Your task to perform on an android device: install app "Google Find My Device" Image 0: 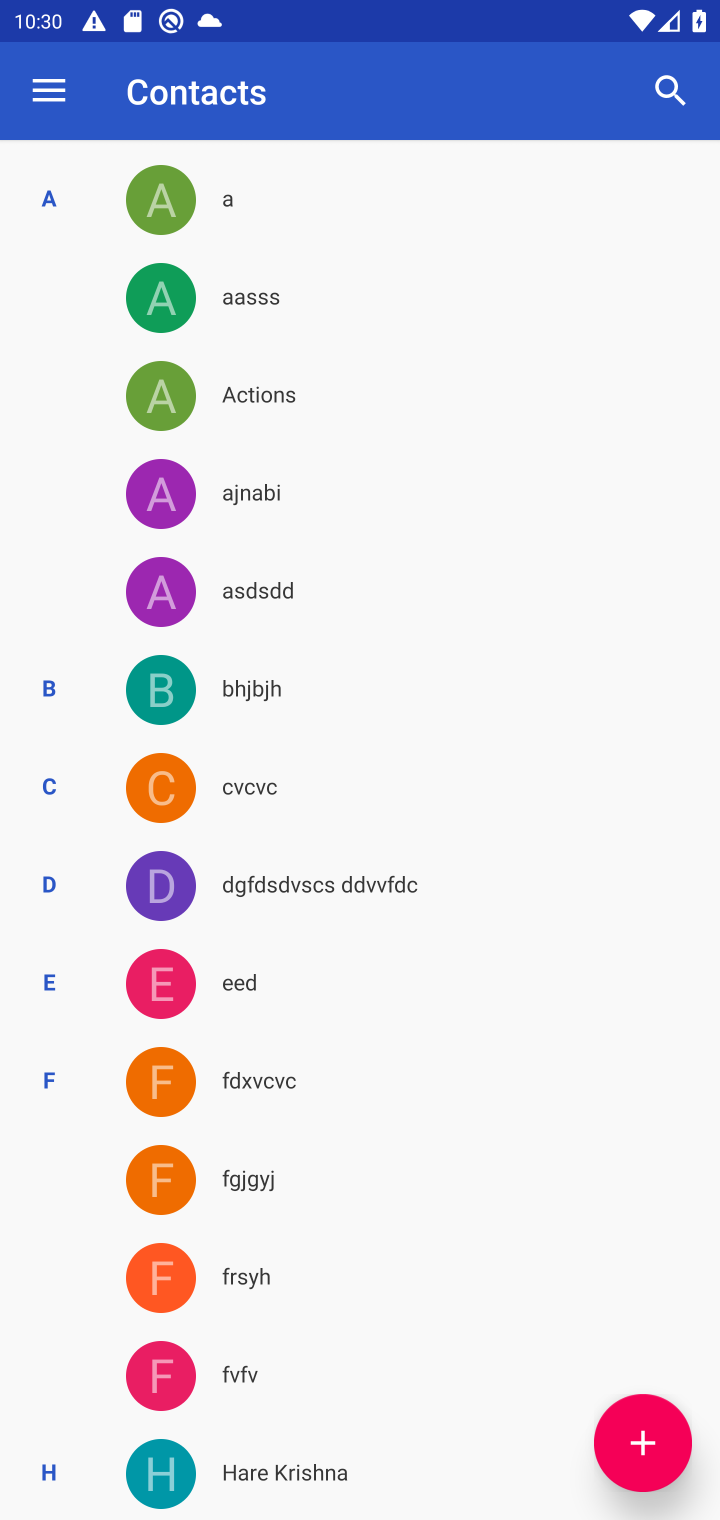
Step 0: press home button
Your task to perform on an android device: install app "Google Find My Device" Image 1: 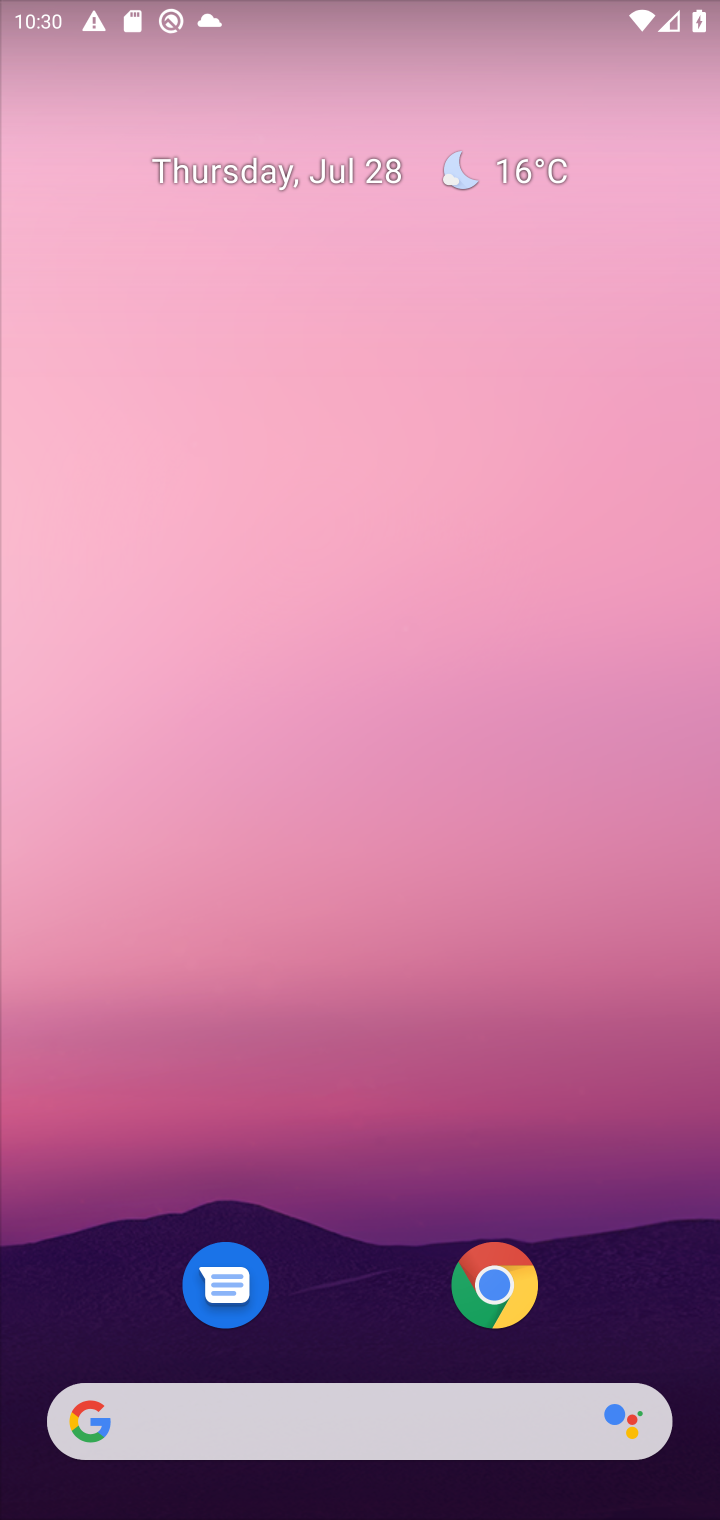
Step 1: drag from (580, 1151) to (428, 130)
Your task to perform on an android device: install app "Google Find My Device" Image 2: 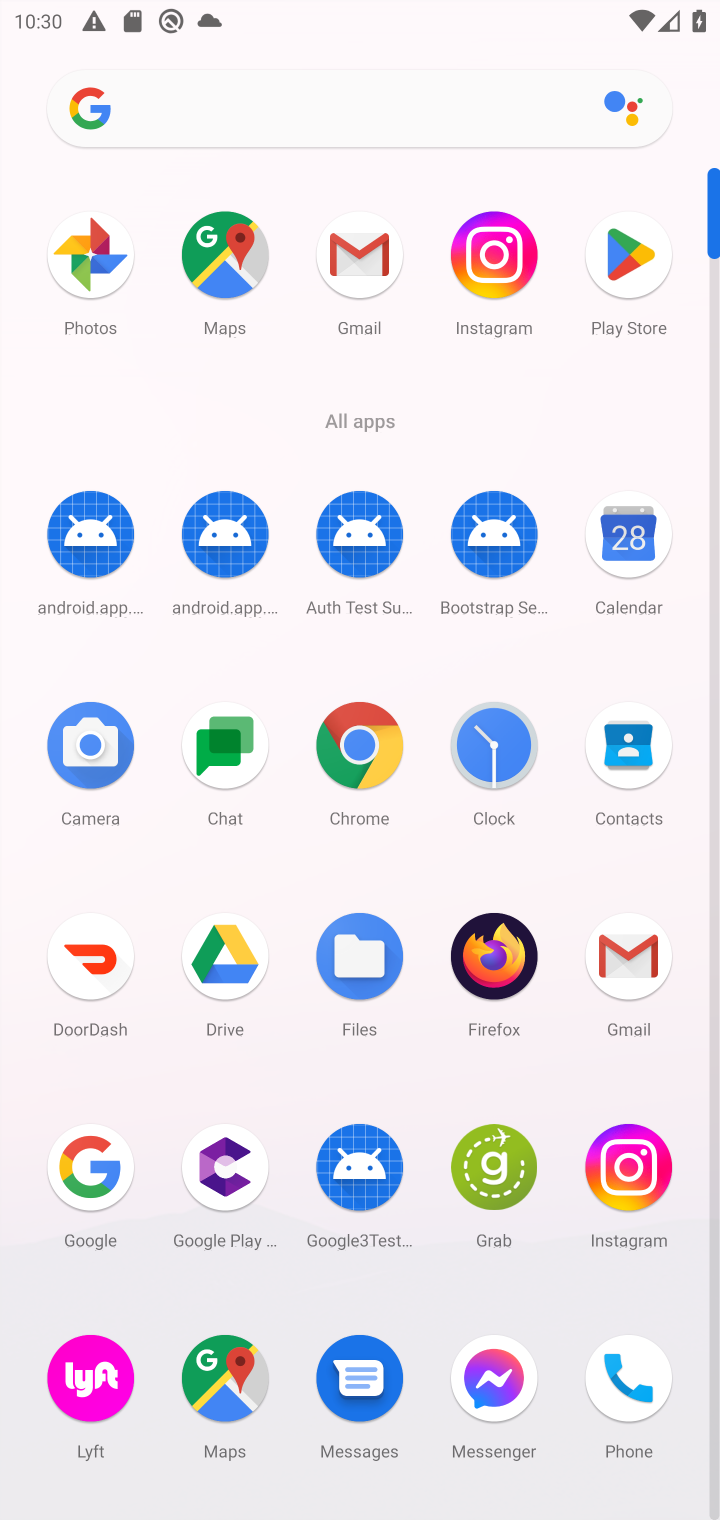
Step 2: click (620, 231)
Your task to perform on an android device: install app "Google Find My Device" Image 3: 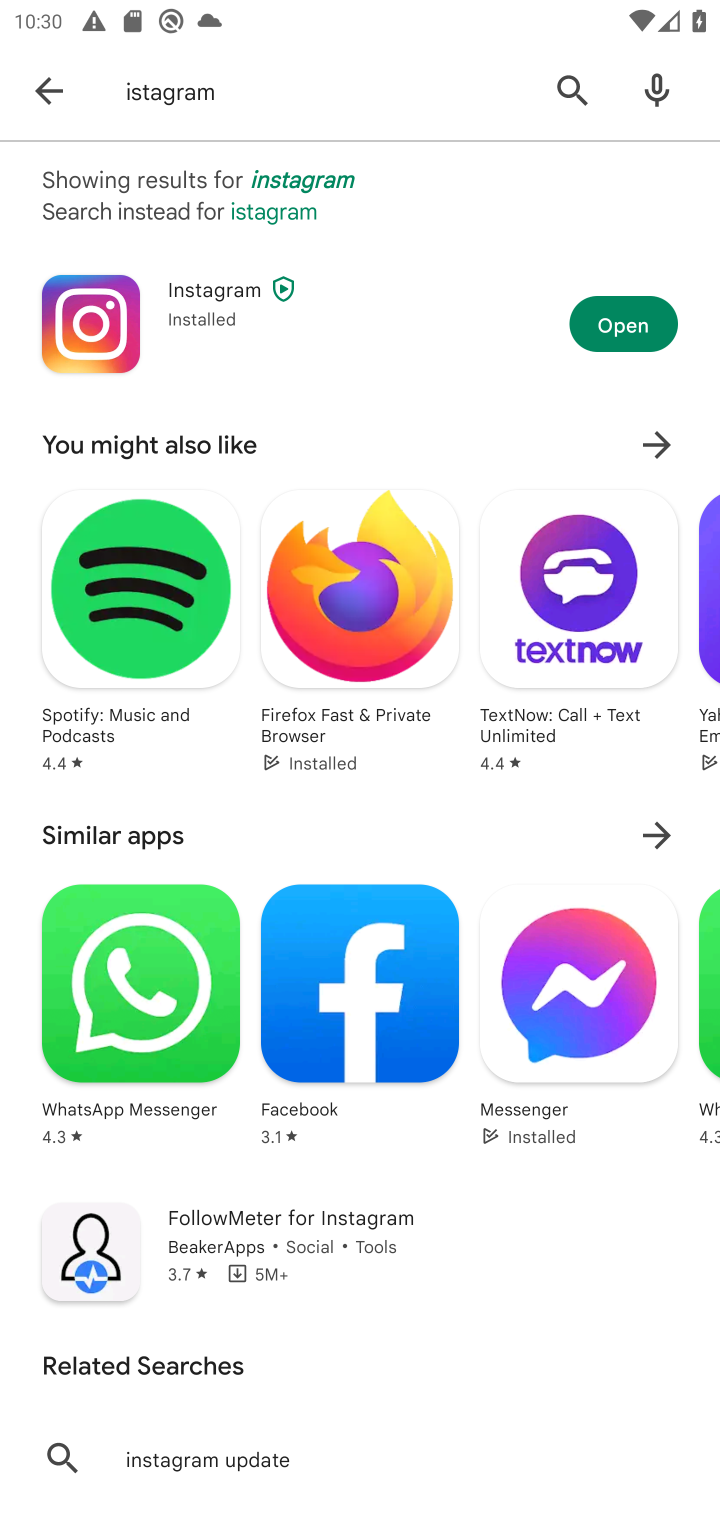
Step 3: click (321, 74)
Your task to perform on an android device: install app "Google Find My Device" Image 4: 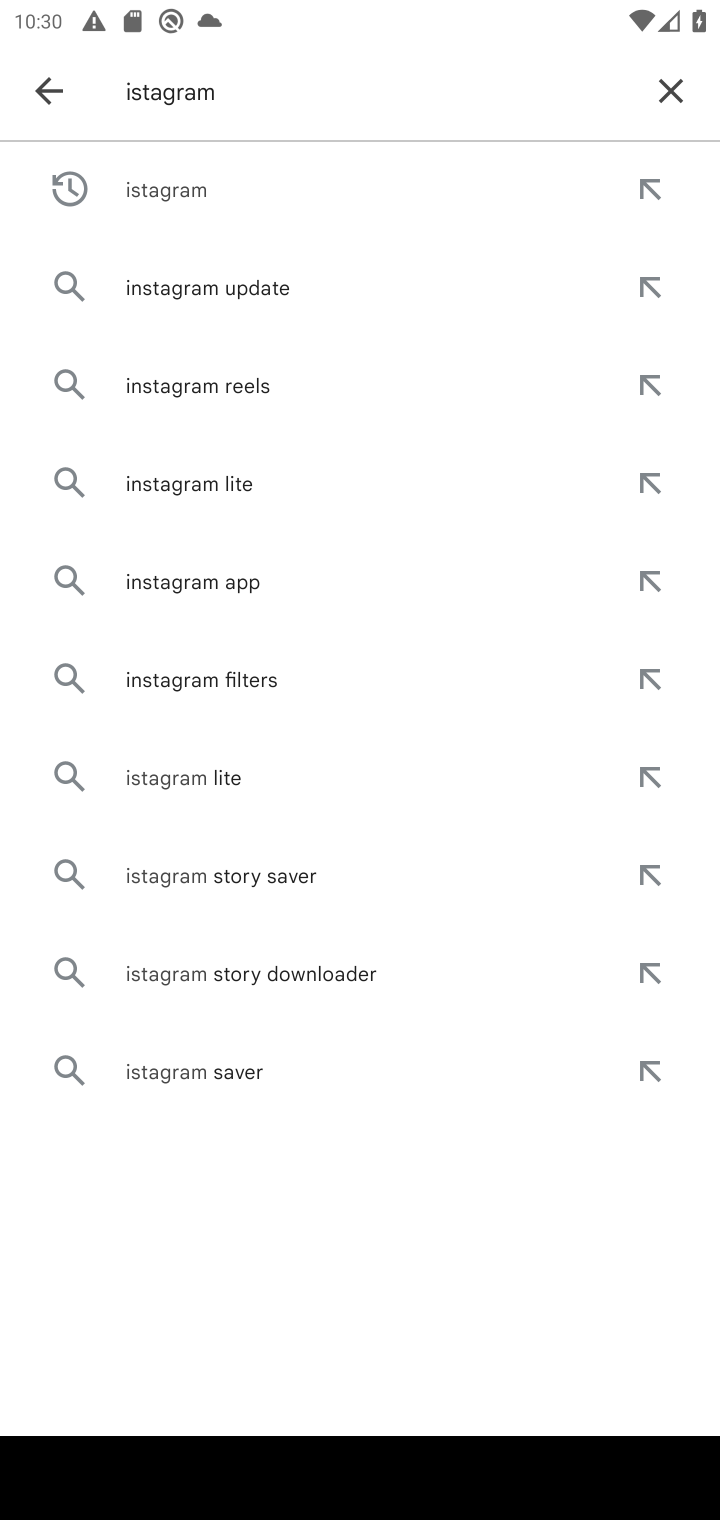
Step 4: click (660, 91)
Your task to perform on an android device: install app "Google Find My Device" Image 5: 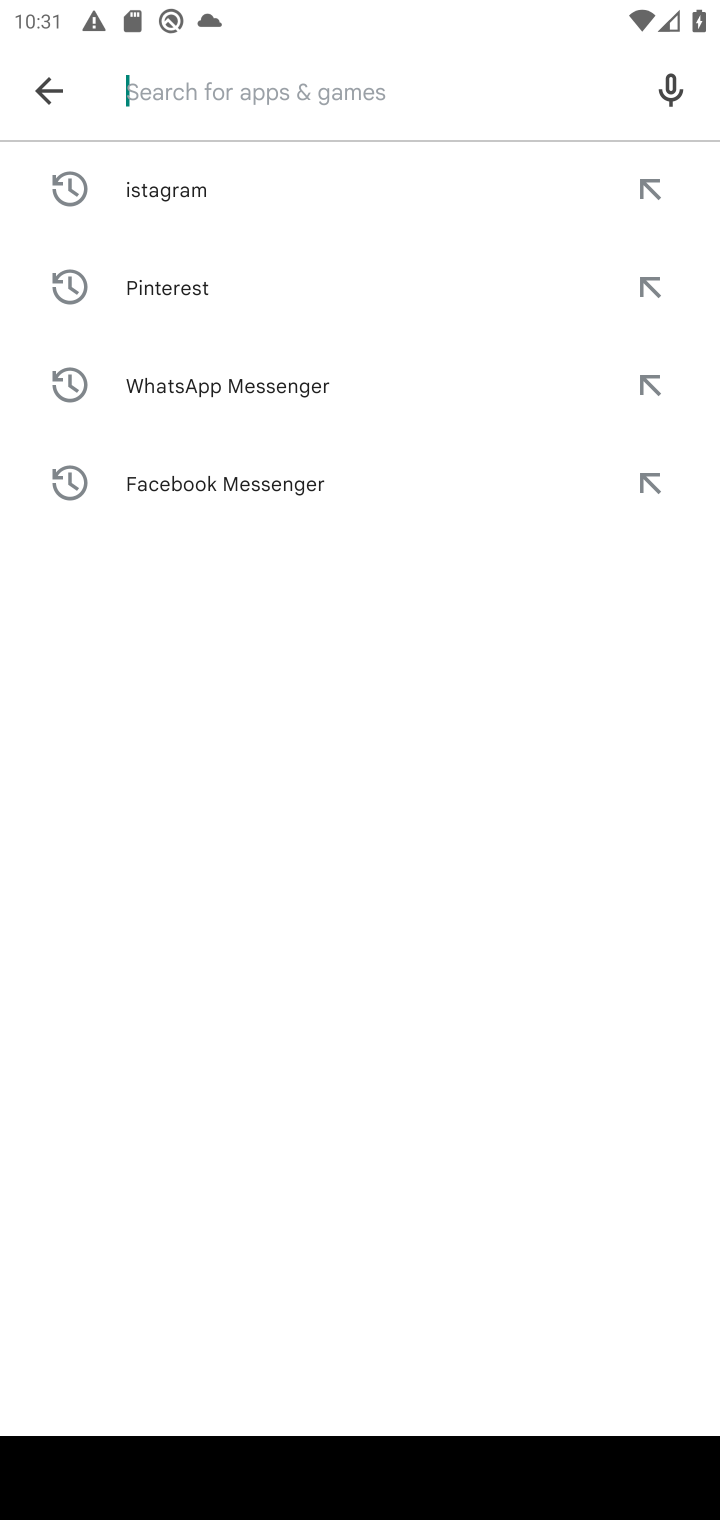
Step 5: type "Google Find My Device"
Your task to perform on an android device: install app "Google Find My Device" Image 6: 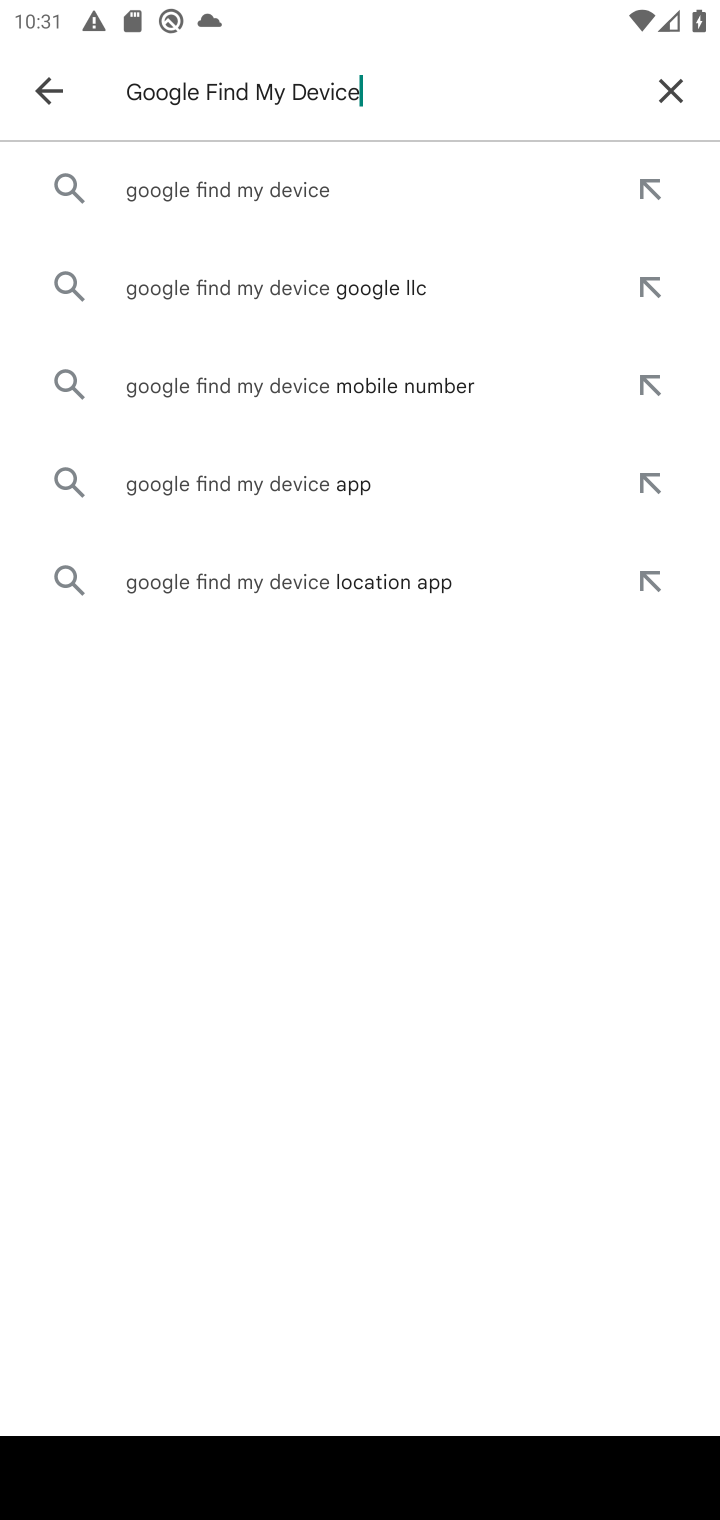
Step 6: press enter
Your task to perform on an android device: install app "Google Find My Device" Image 7: 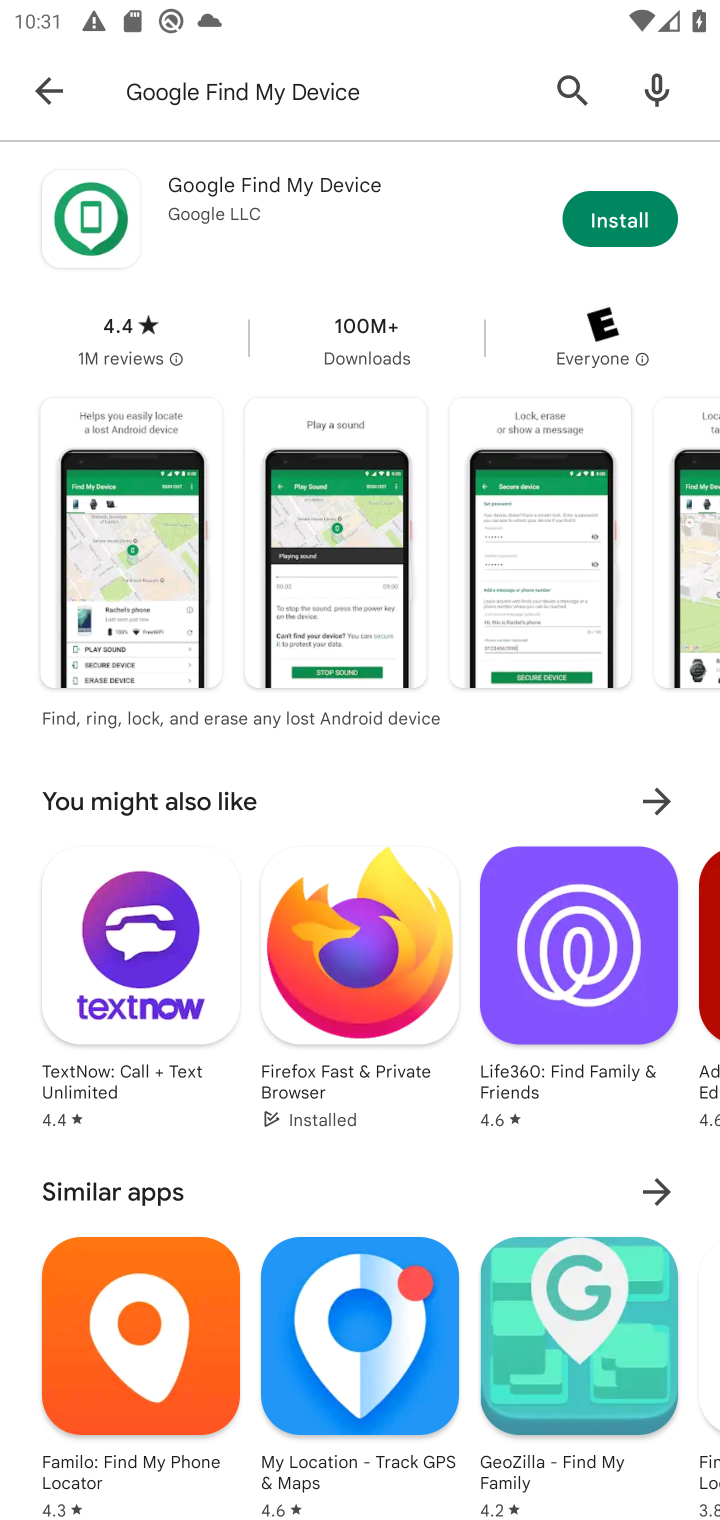
Step 7: click (646, 210)
Your task to perform on an android device: install app "Google Find My Device" Image 8: 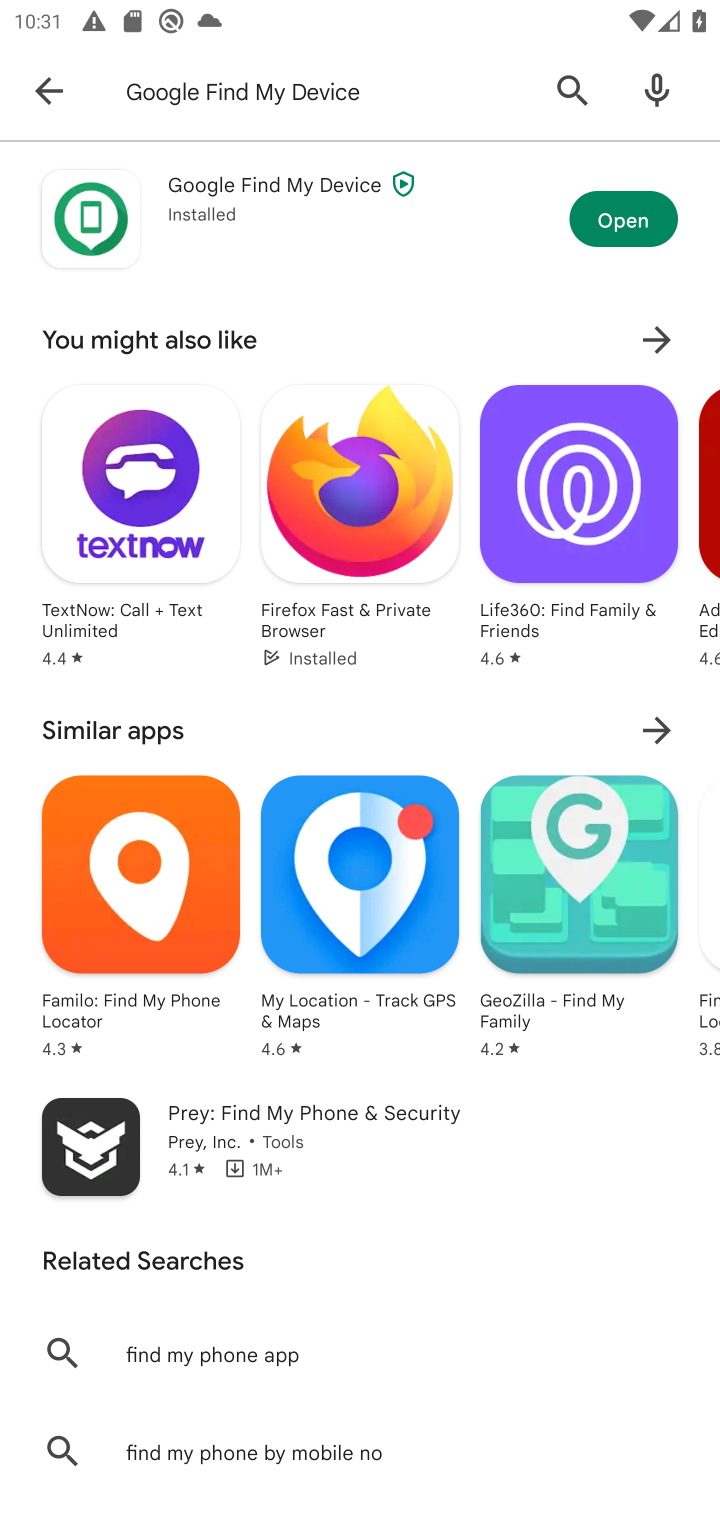
Step 8: task complete